Your task to perform on an android device: Open calendar and show me the second week of next month Image 0: 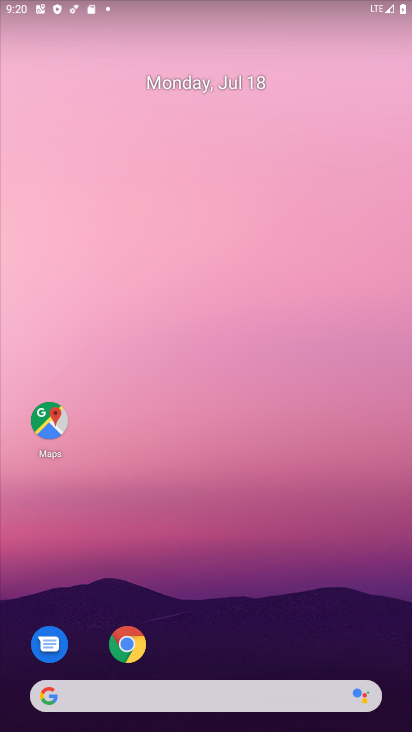
Step 0: drag from (230, 665) to (224, 27)
Your task to perform on an android device: Open calendar and show me the second week of next month Image 1: 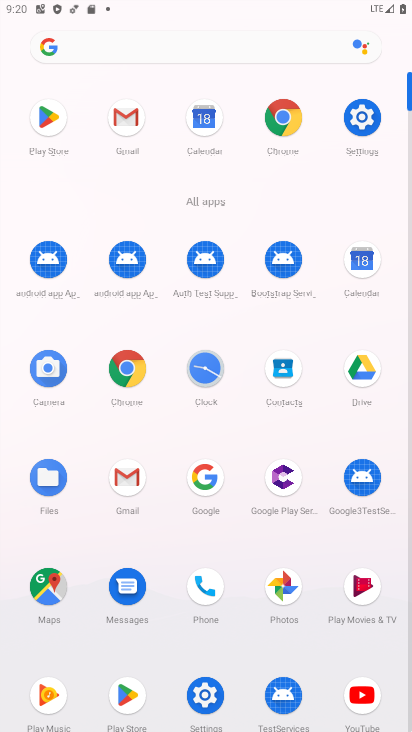
Step 1: click (373, 263)
Your task to perform on an android device: Open calendar and show me the second week of next month Image 2: 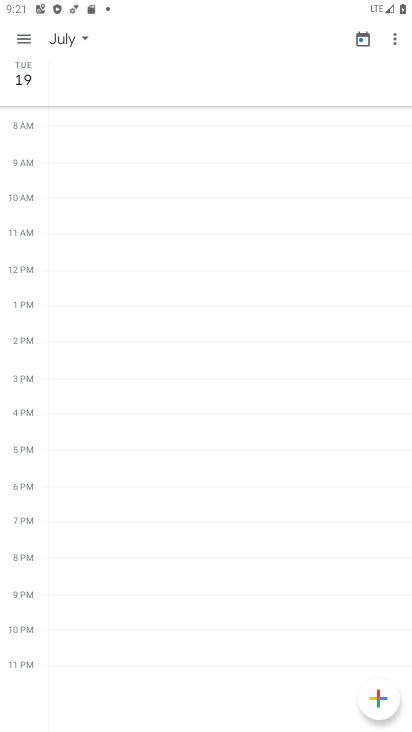
Step 2: click (30, 43)
Your task to perform on an android device: Open calendar and show me the second week of next month Image 3: 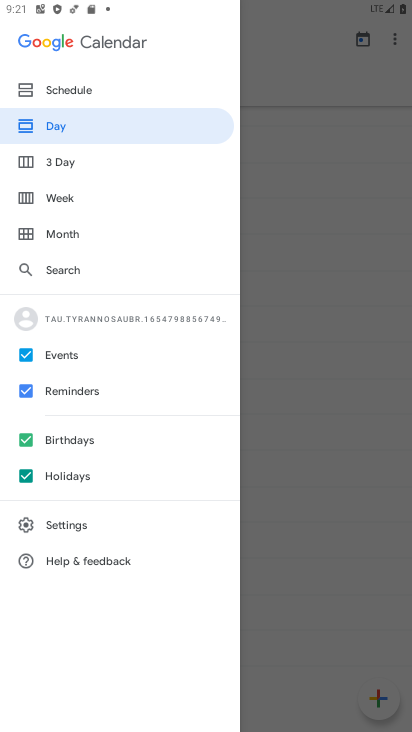
Step 3: click (69, 196)
Your task to perform on an android device: Open calendar and show me the second week of next month Image 4: 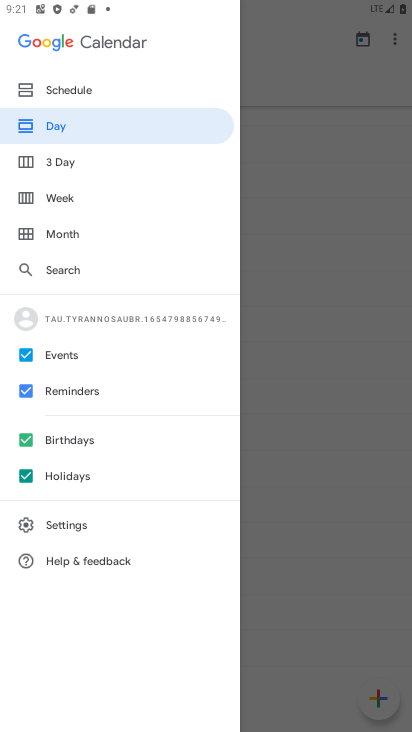
Step 4: click (48, 200)
Your task to perform on an android device: Open calendar and show me the second week of next month Image 5: 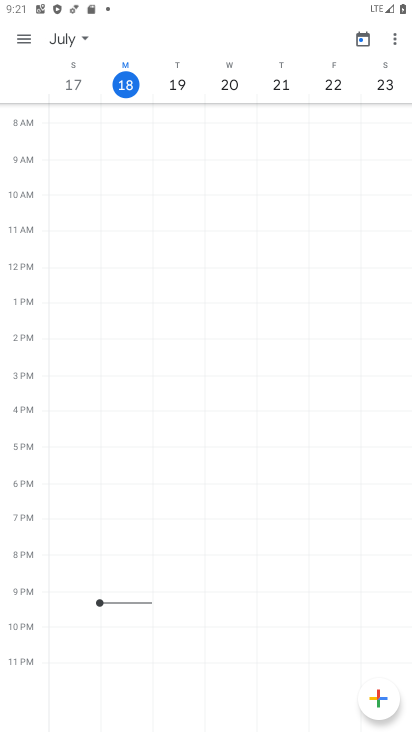
Step 5: task complete